Your task to perform on an android device: Show me the alarms in the clock app Image 0: 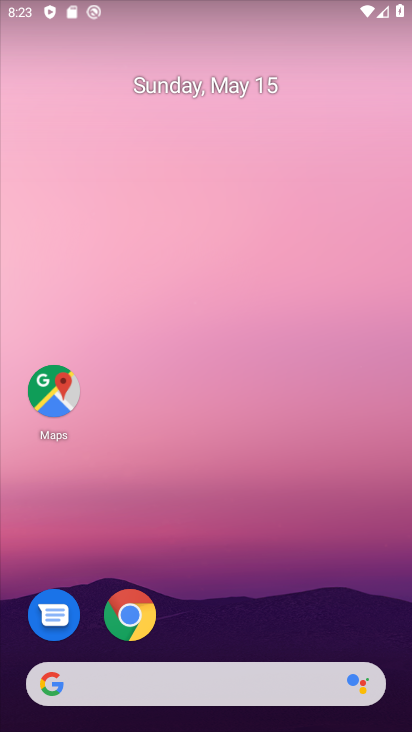
Step 0: drag from (223, 574) to (217, 5)
Your task to perform on an android device: Show me the alarms in the clock app Image 1: 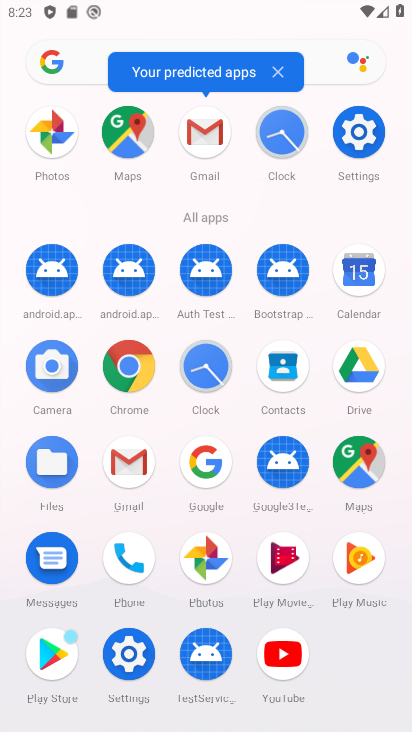
Step 1: drag from (12, 556) to (13, 272)
Your task to perform on an android device: Show me the alarms in the clock app Image 2: 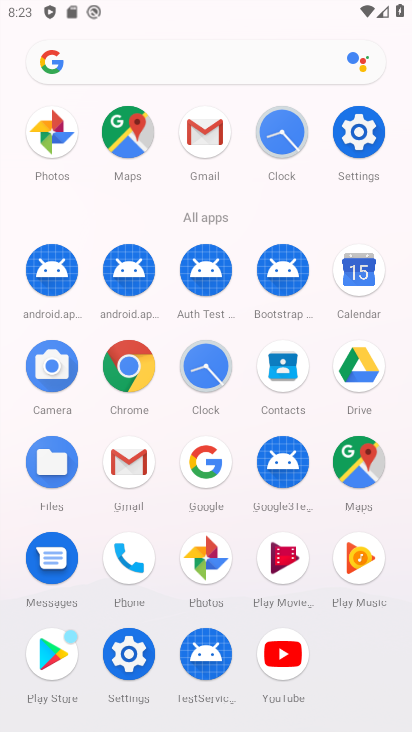
Step 2: click (203, 359)
Your task to perform on an android device: Show me the alarms in the clock app Image 3: 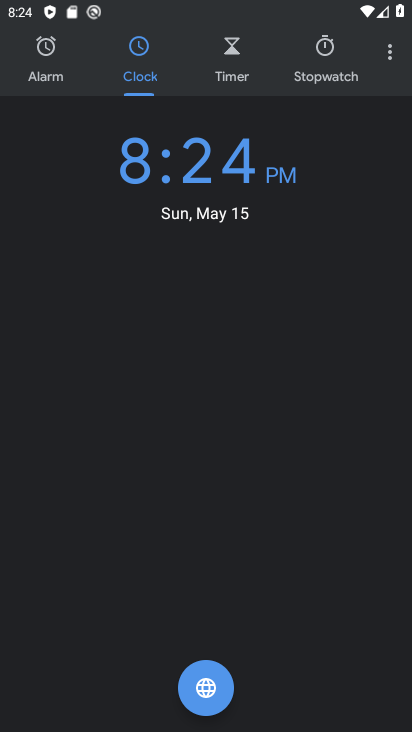
Step 3: task complete